Your task to perform on an android device: Open Reddit.com Image 0: 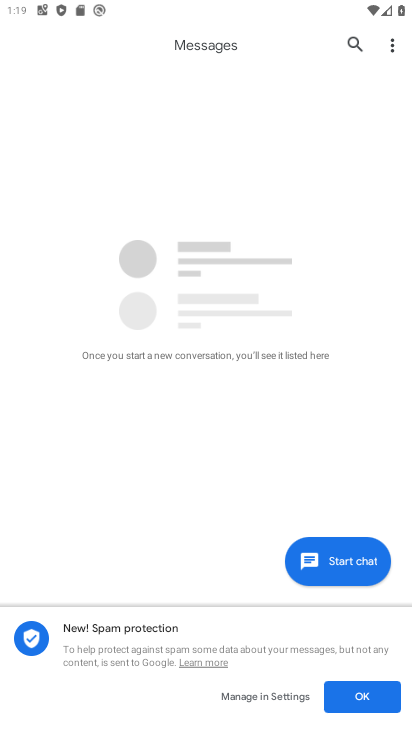
Step 0: press home button
Your task to perform on an android device: Open Reddit.com Image 1: 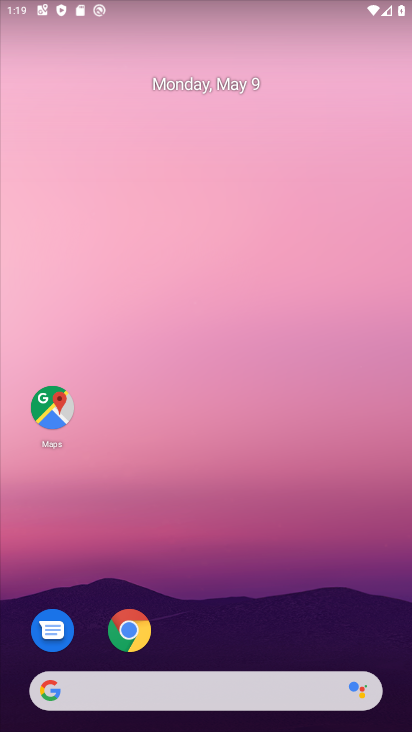
Step 1: click (132, 636)
Your task to perform on an android device: Open Reddit.com Image 2: 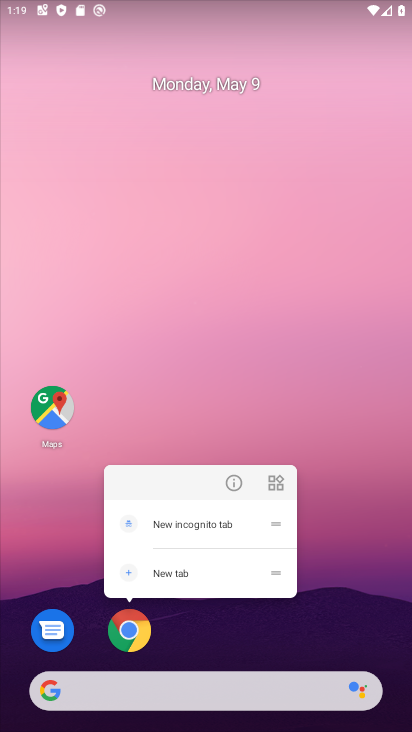
Step 2: click (129, 646)
Your task to perform on an android device: Open Reddit.com Image 3: 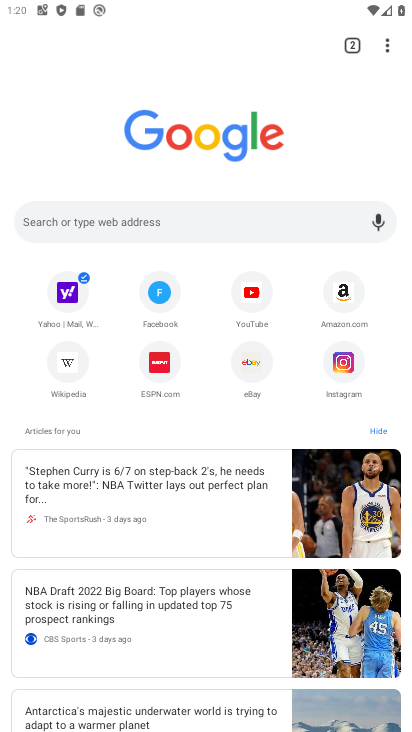
Step 3: click (141, 223)
Your task to perform on an android device: Open Reddit.com Image 4: 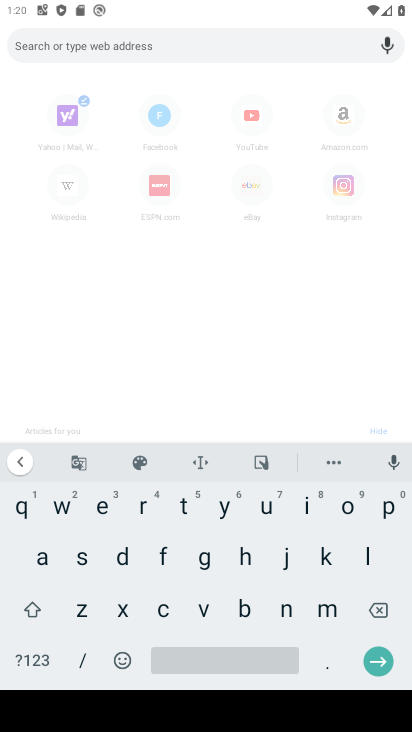
Step 4: click (135, 508)
Your task to perform on an android device: Open Reddit.com Image 5: 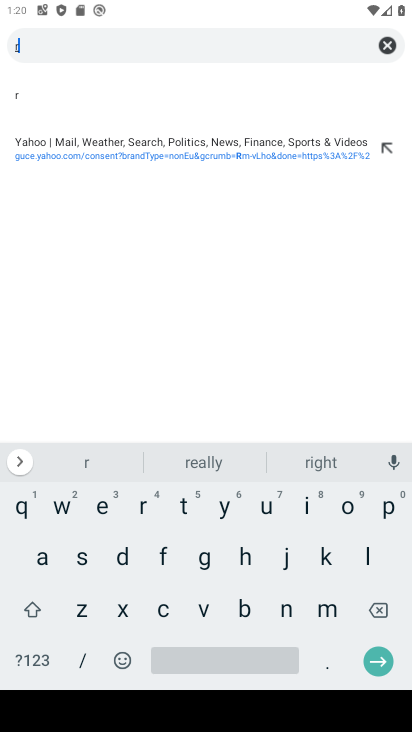
Step 5: click (100, 507)
Your task to perform on an android device: Open Reddit.com Image 6: 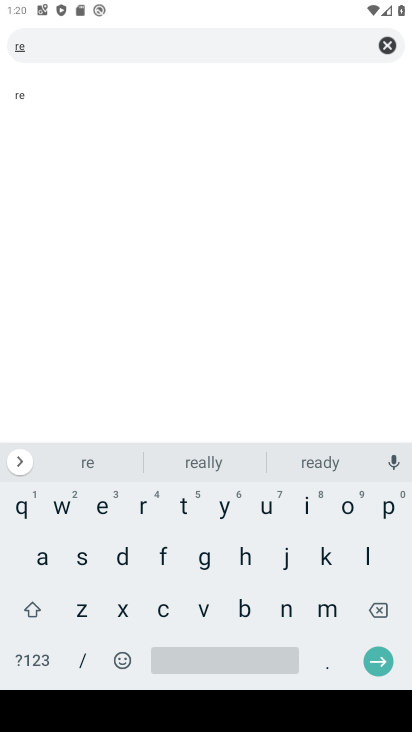
Step 6: click (121, 560)
Your task to perform on an android device: Open Reddit.com Image 7: 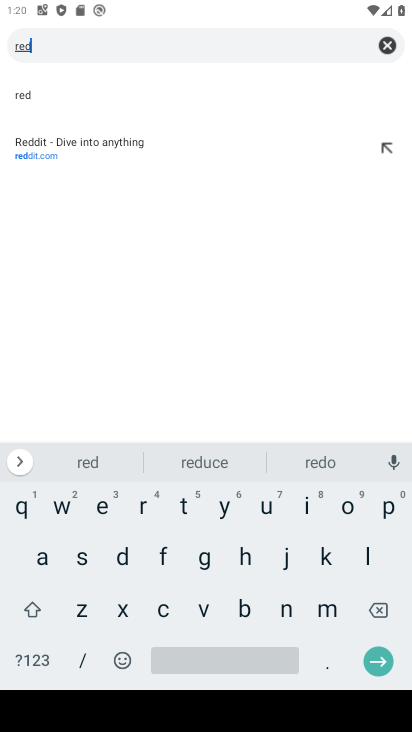
Step 7: click (97, 151)
Your task to perform on an android device: Open Reddit.com Image 8: 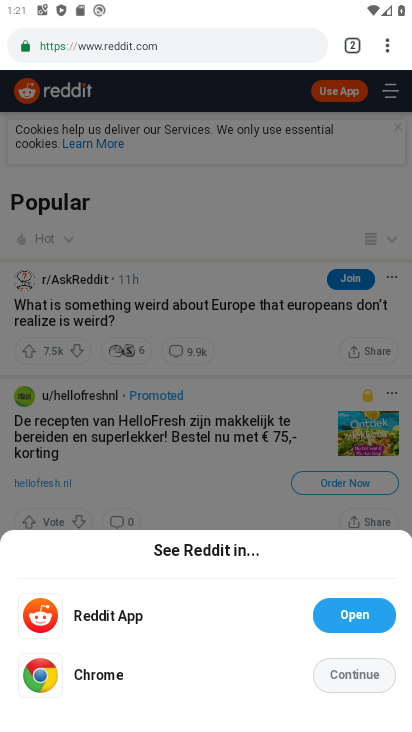
Step 8: click (351, 681)
Your task to perform on an android device: Open Reddit.com Image 9: 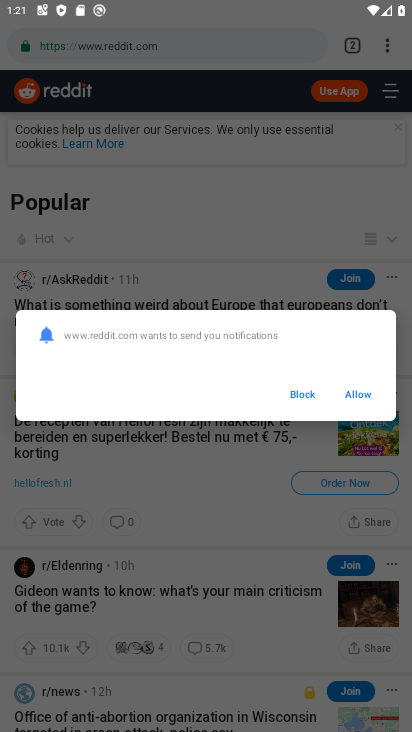
Step 9: task complete